Your task to perform on an android device: open app "Grab" (install if not already installed) Image 0: 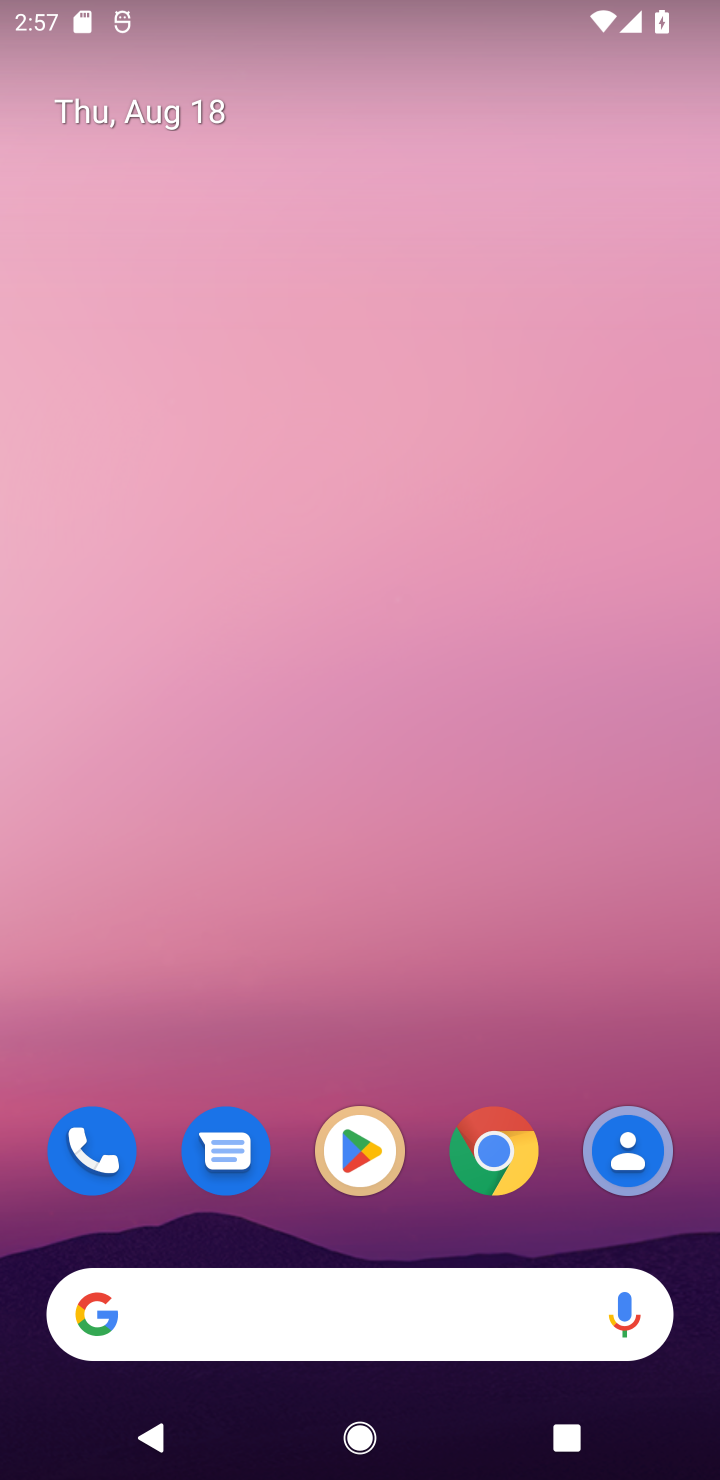
Step 0: click (362, 1151)
Your task to perform on an android device: open app "Grab" (install if not already installed) Image 1: 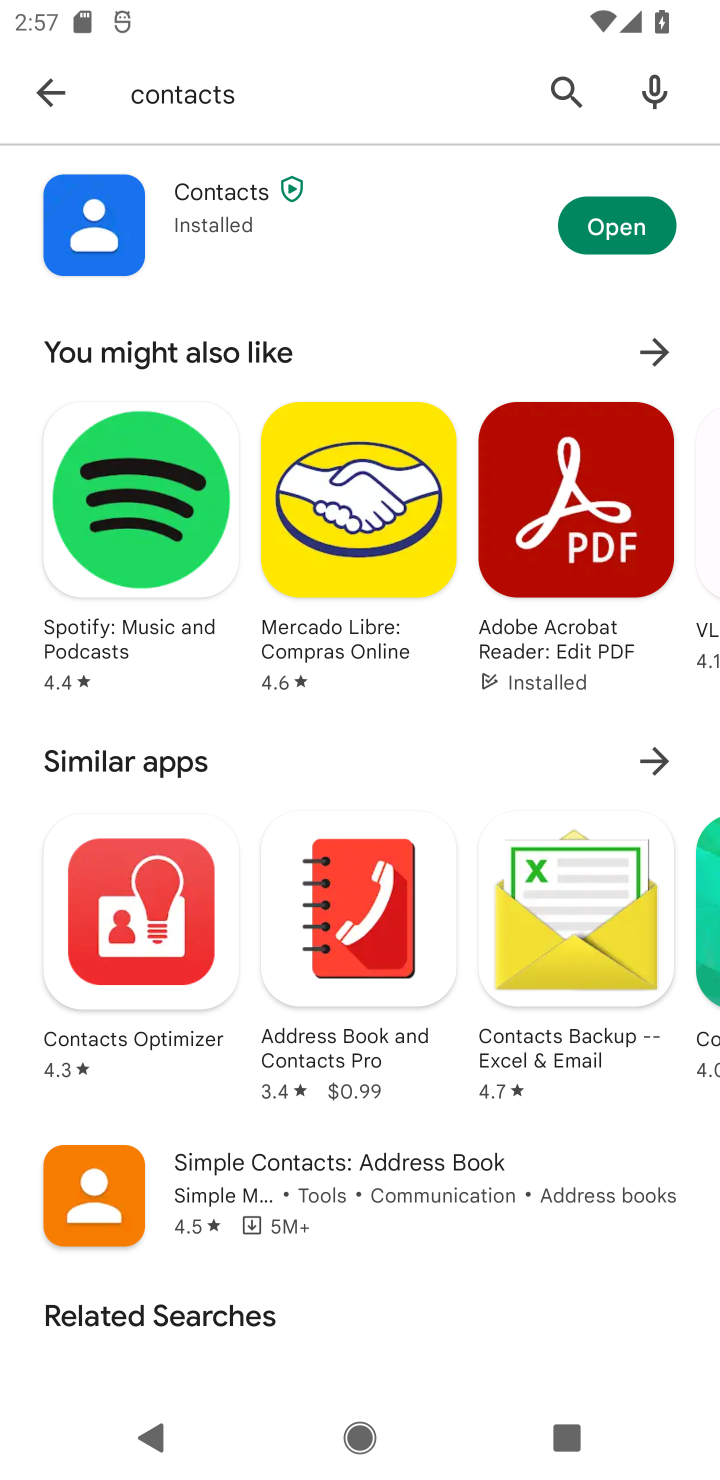
Step 1: click (560, 117)
Your task to perform on an android device: open app "Grab" (install if not already installed) Image 2: 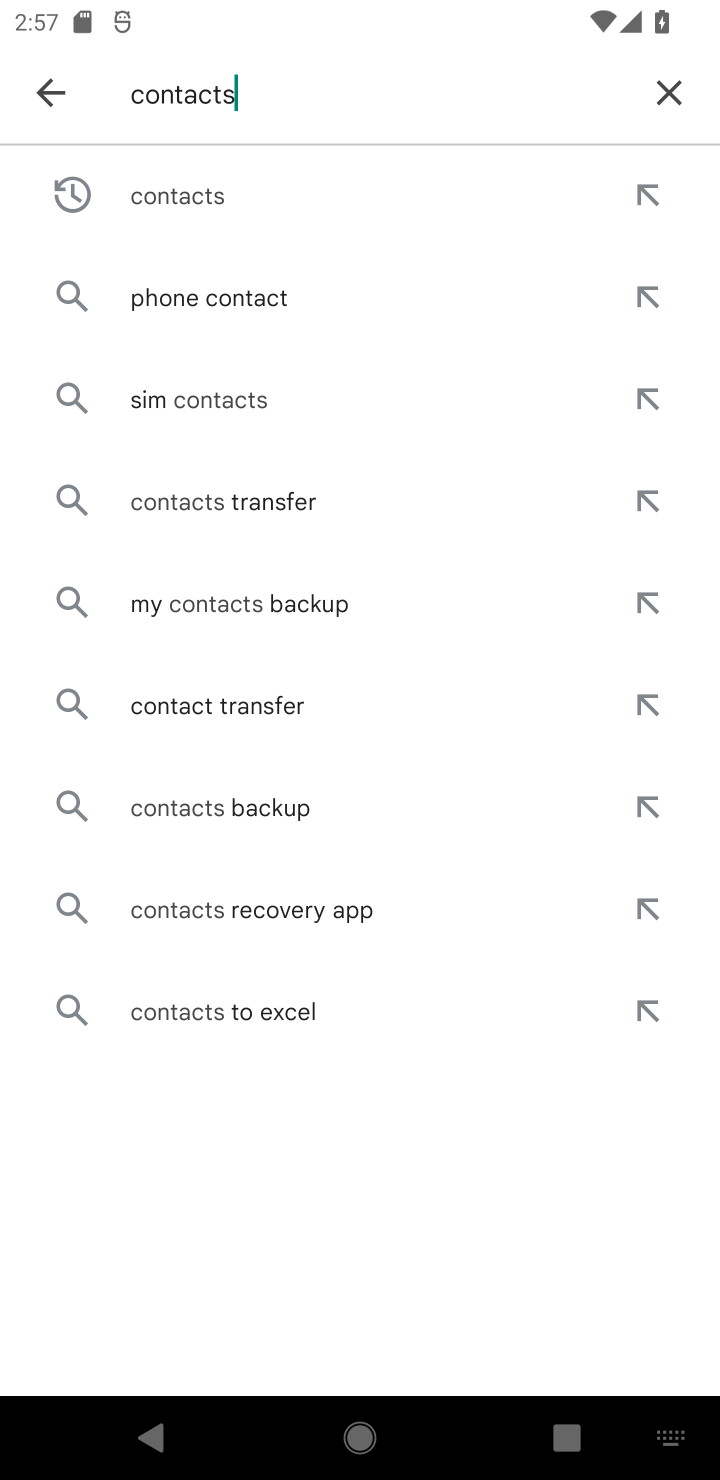
Step 2: click (662, 89)
Your task to perform on an android device: open app "Grab" (install if not already installed) Image 3: 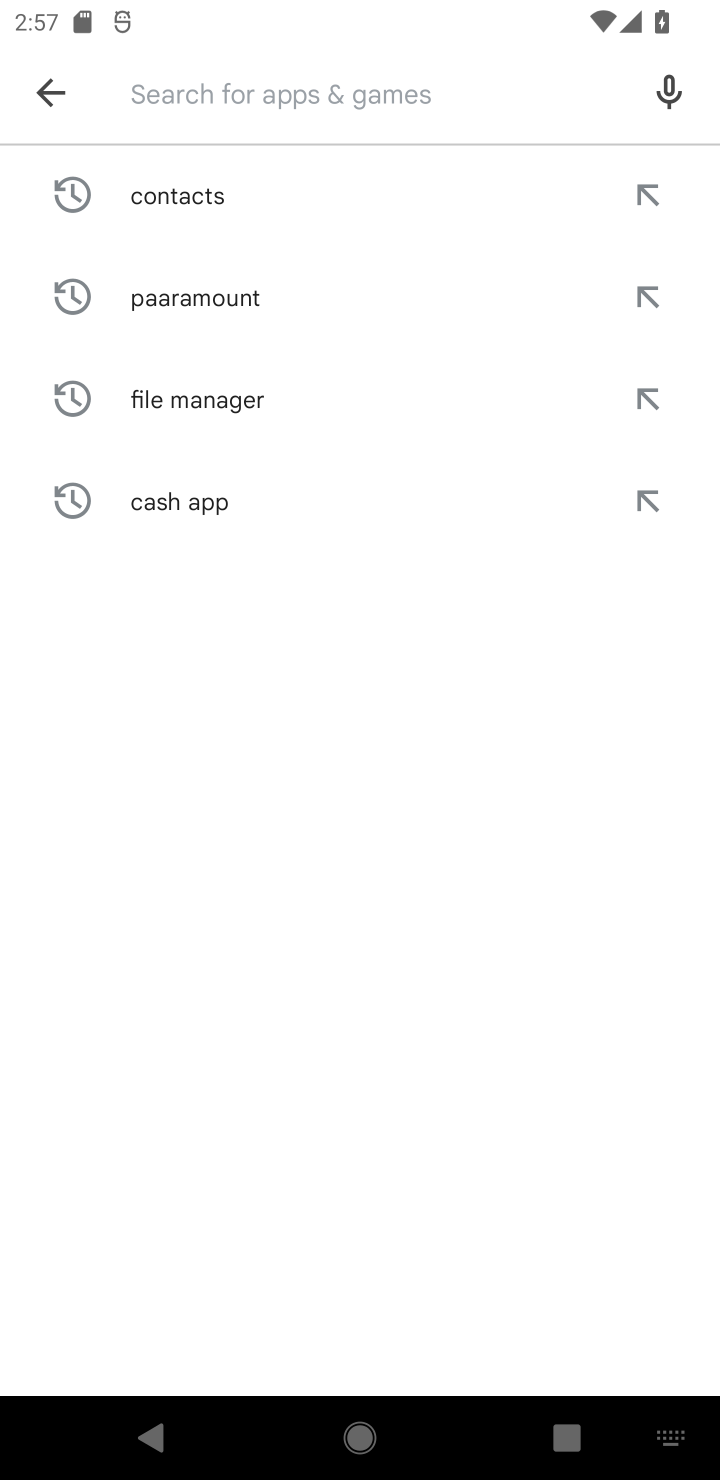
Step 3: type "grab"
Your task to perform on an android device: open app "Grab" (install if not already installed) Image 4: 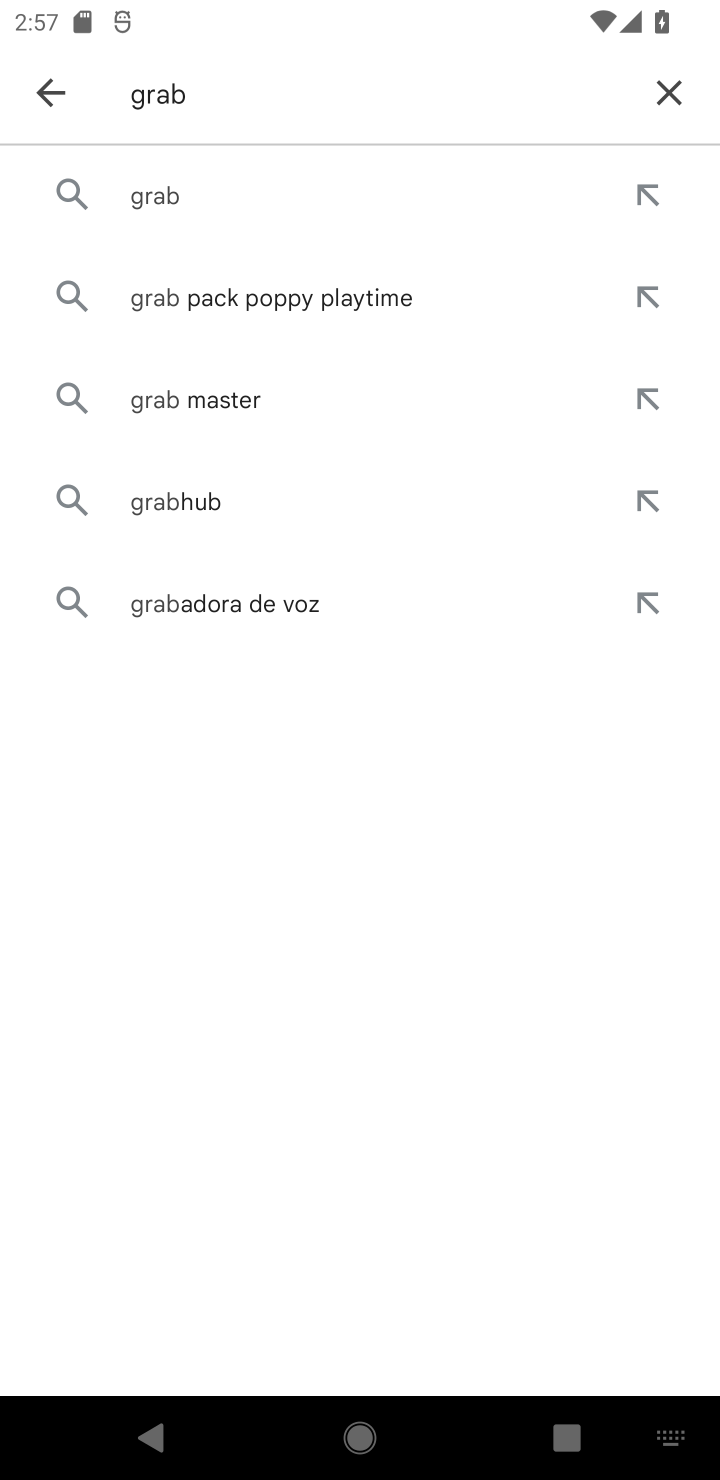
Step 4: click (221, 206)
Your task to perform on an android device: open app "Grab" (install if not already installed) Image 5: 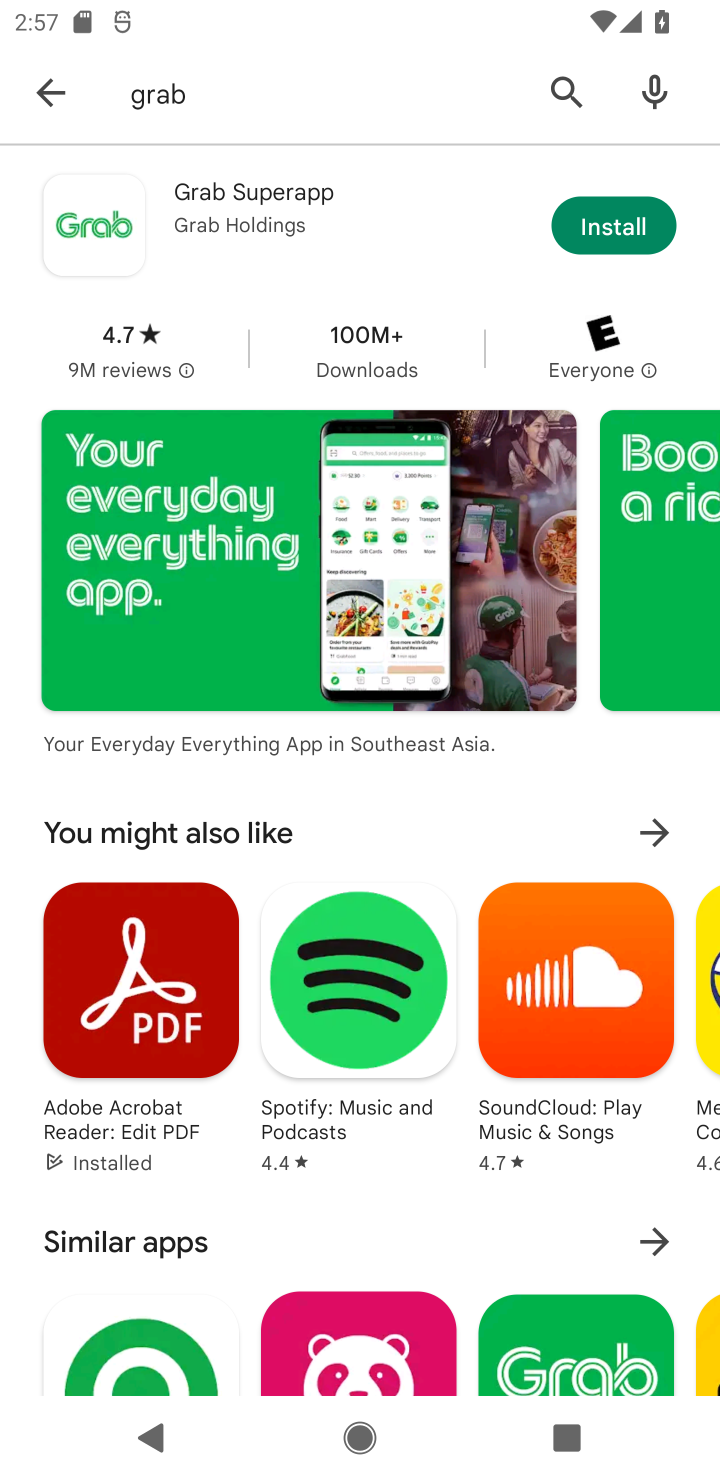
Step 5: click (617, 235)
Your task to perform on an android device: open app "Grab" (install if not already installed) Image 6: 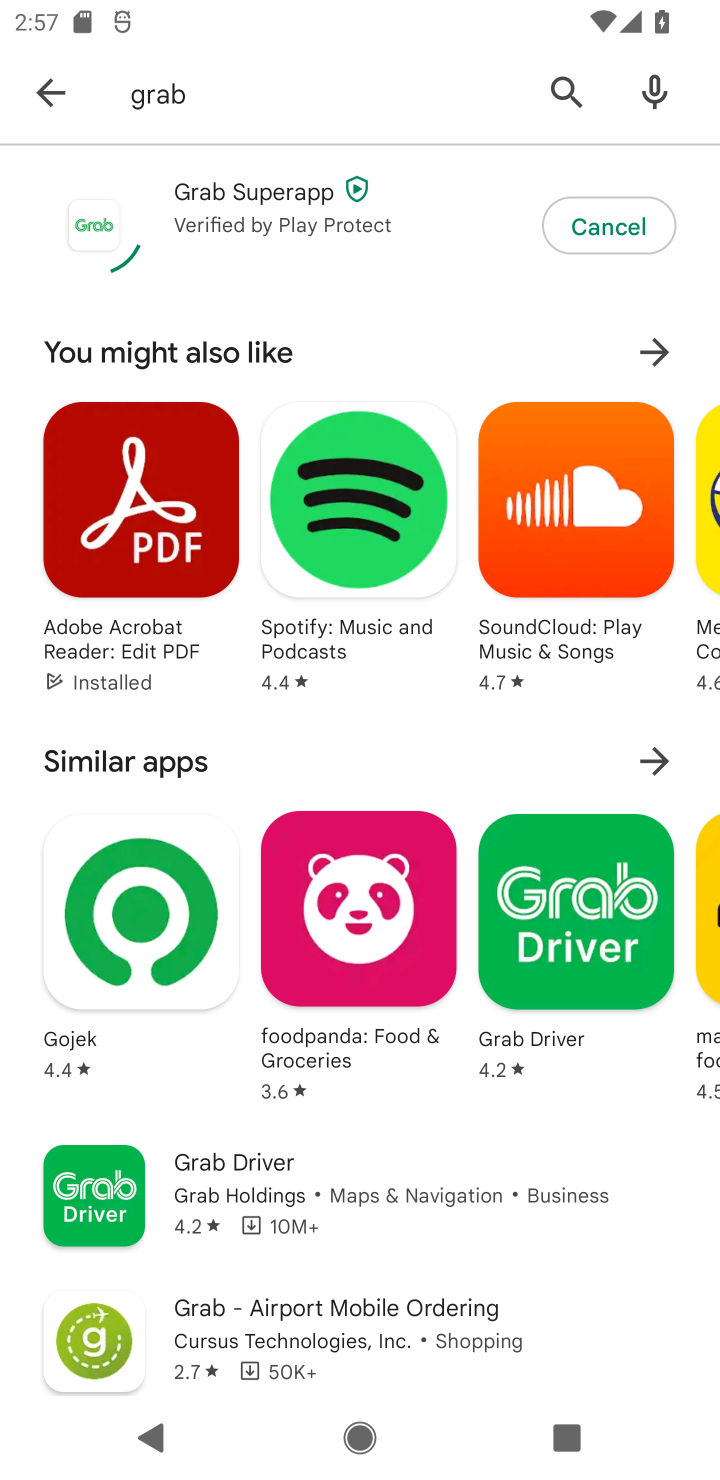
Step 6: task complete